Your task to perform on an android device: delete browsing data in the chrome app Image 0: 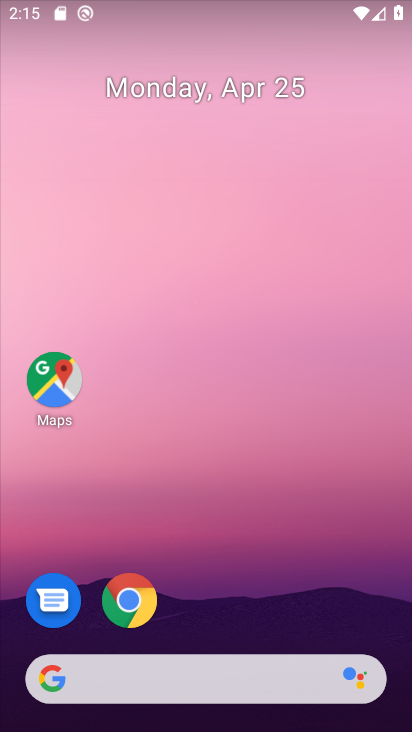
Step 0: drag from (322, 578) to (324, 103)
Your task to perform on an android device: delete browsing data in the chrome app Image 1: 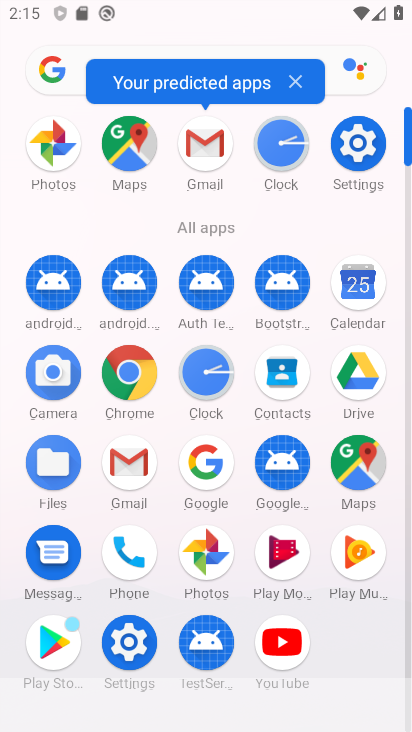
Step 1: click (136, 391)
Your task to perform on an android device: delete browsing data in the chrome app Image 2: 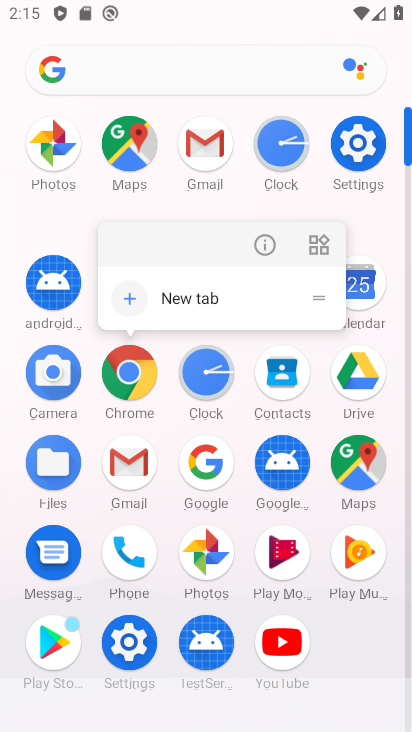
Step 2: click (136, 391)
Your task to perform on an android device: delete browsing data in the chrome app Image 3: 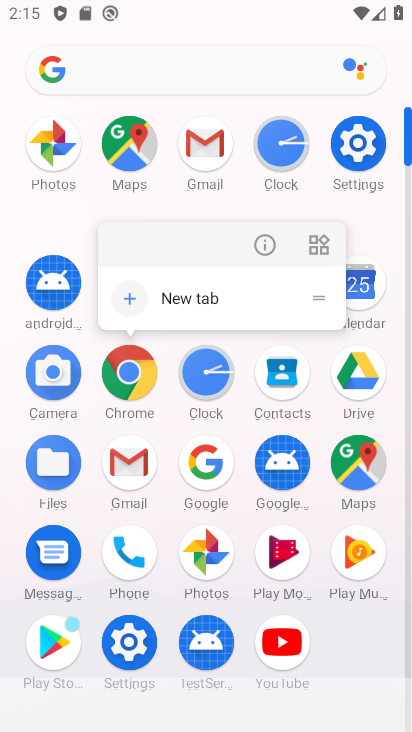
Step 3: click (136, 395)
Your task to perform on an android device: delete browsing data in the chrome app Image 4: 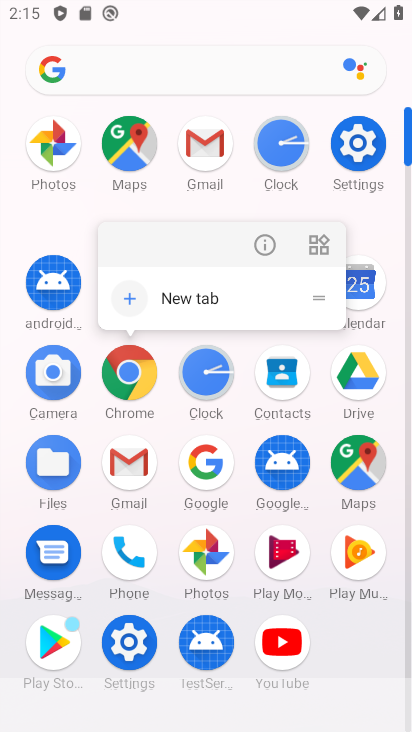
Step 4: click (125, 395)
Your task to perform on an android device: delete browsing data in the chrome app Image 5: 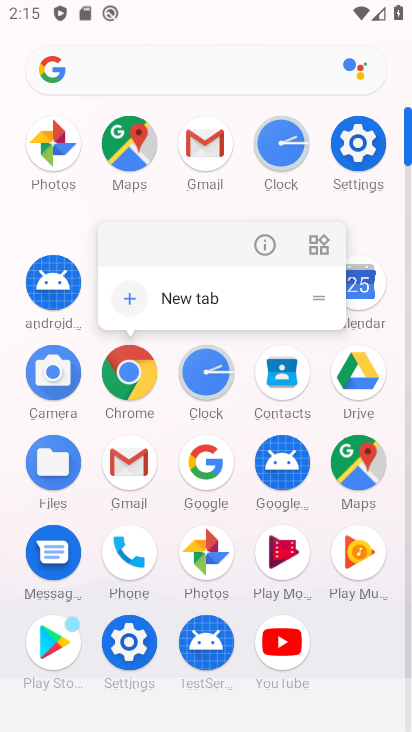
Step 5: click (124, 393)
Your task to perform on an android device: delete browsing data in the chrome app Image 6: 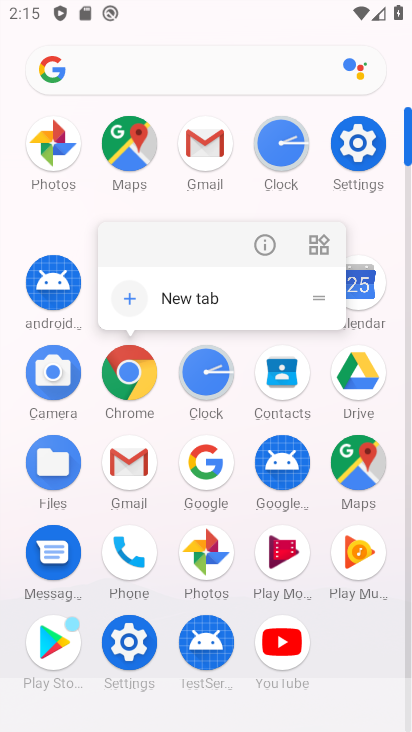
Step 6: click (147, 361)
Your task to perform on an android device: delete browsing data in the chrome app Image 7: 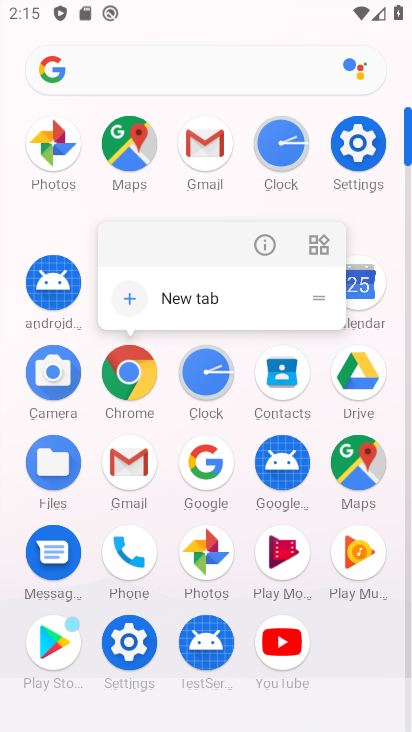
Step 7: click (131, 352)
Your task to perform on an android device: delete browsing data in the chrome app Image 8: 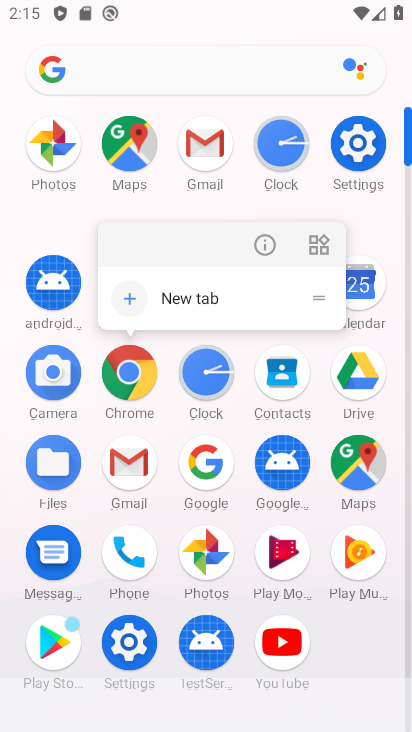
Step 8: click (111, 374)
Your task to perform on an android device: delete browsing data in the chrome app Image 9: 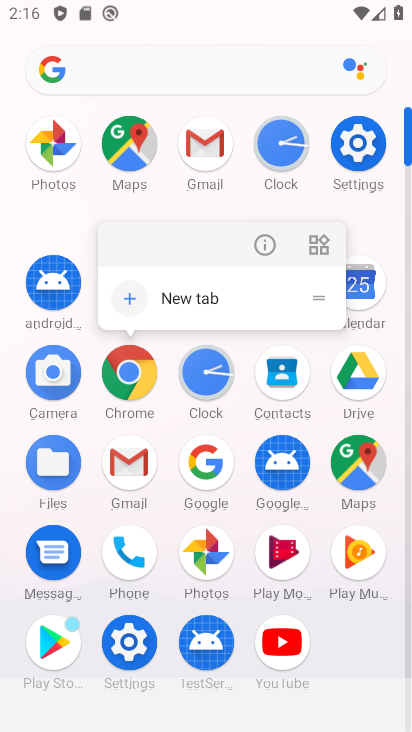
Step 9: click (111, 385)
Your task to perform on an android device: delete browsing data in the chrome app Image 10: 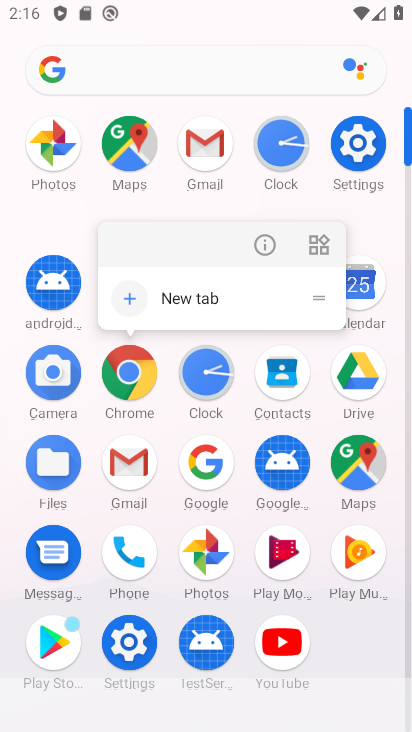
Step 10: click (147, 378)
Your task to perform on an android device: delete browsing data in the chrome app Image 11: 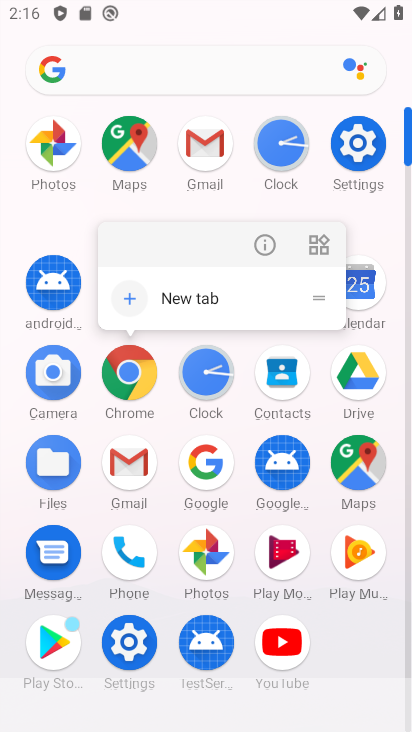
Step 11: click (139, 357)
Your task to perform on an android device: delete browsing data in the chrome app Image 12: 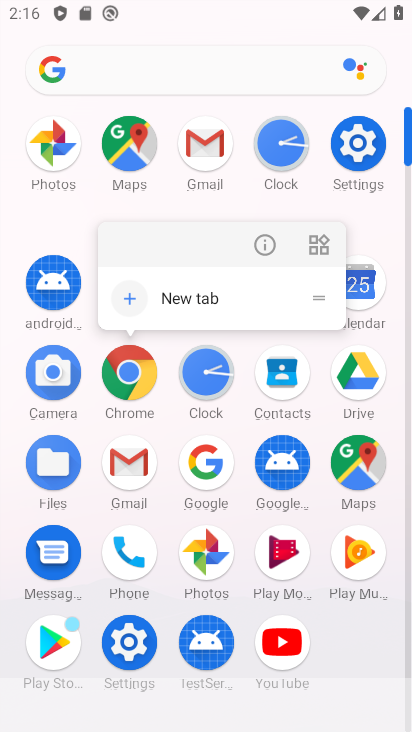
Step 12: click (139, 357)
Your task to perform on an android device: delete browsing data in the chrome app Image 13: 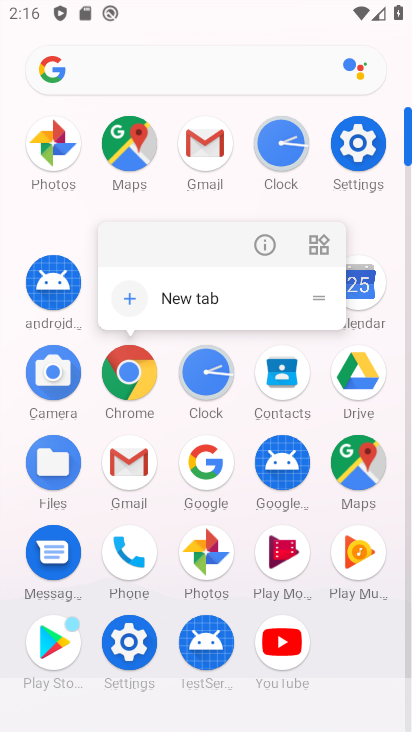
Step 13: click (139, 357)
Your task to perform on an android device: delete browsing data in the chrome app Image 14: 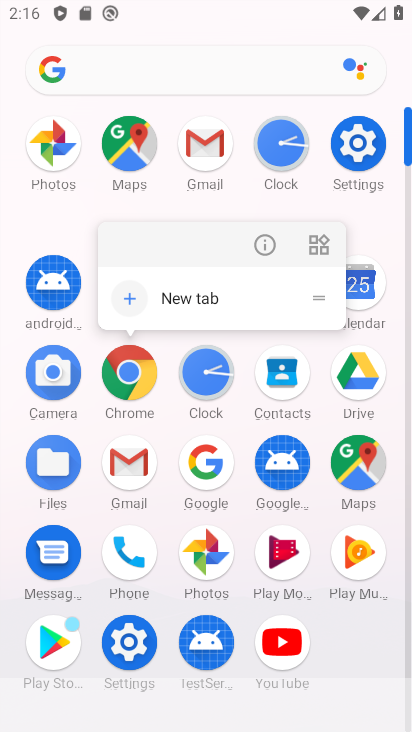
Step 14: click (134, 363)
Your task to perform on an android device: delete browsing data in the chrome app Image 15: 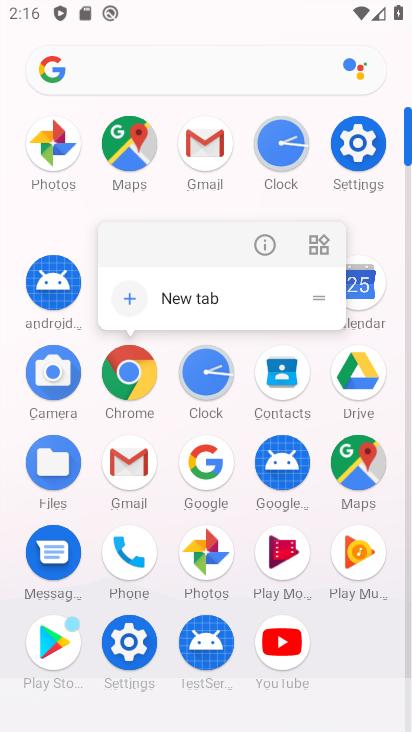
Step 15: task complete